Your task to perform on an android device: turn on translation in the chrome app Image 0: 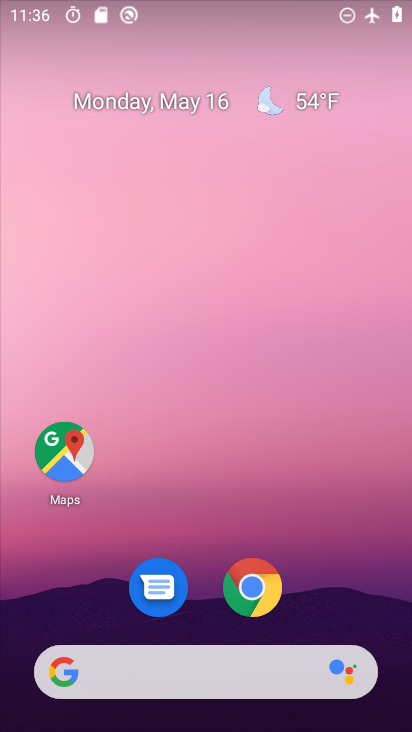
Step 0: drag from (215, 550) to (234, 113)
Your task to perform on an android device: turn on translation in the chrome app Image 1: 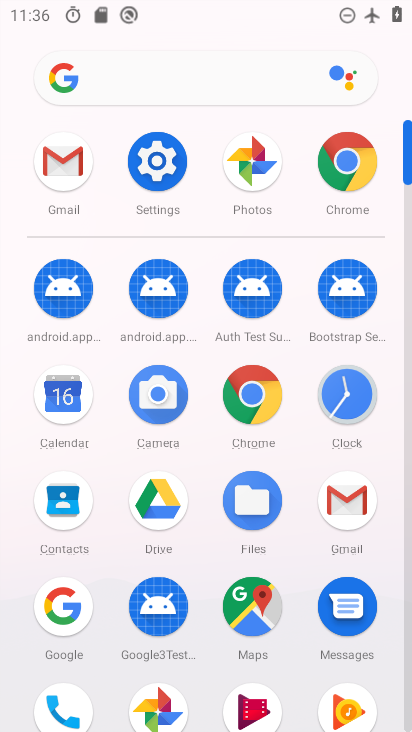
Step 1: click (252, 395)
Your task to perform on an android device: turn on translation in the chrome app Image 2: 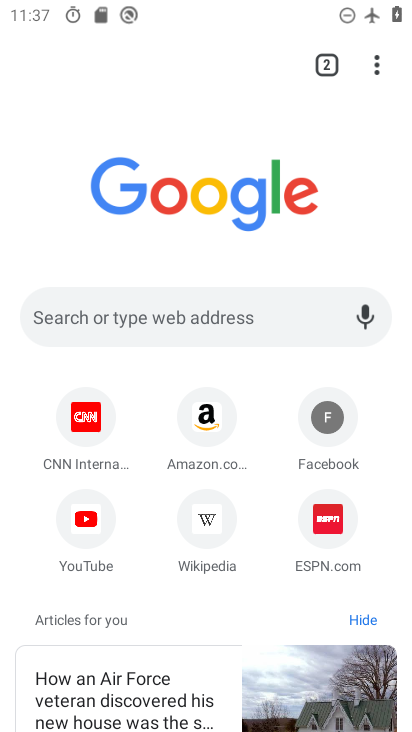
Step 2: drag from (285, 580) to (245, 191)
Your task to perform on an android device: turn on translation in the chrome app Image 3: 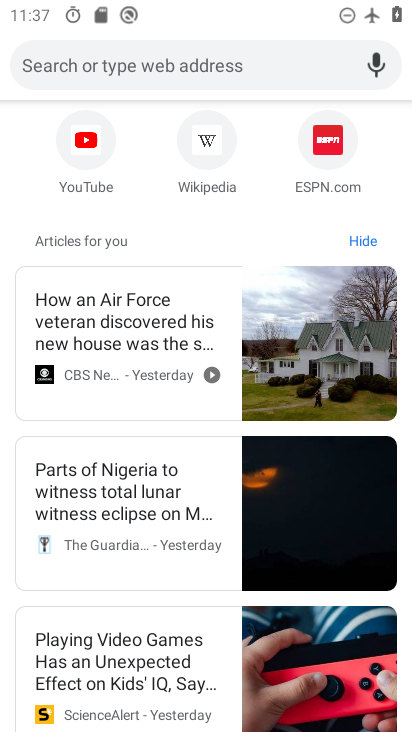
Step 3: drag from (260, 174) to (308, 685)
Your task to perform on an android device: turn on translation in the chrome app Image 4: 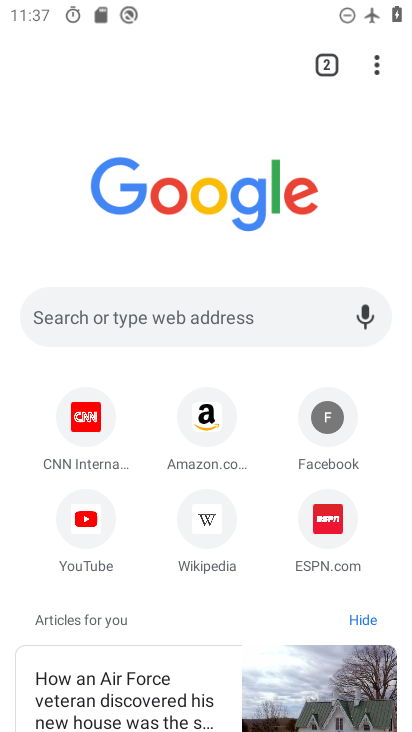
Step 4: click (381, 62)
Your task to perform on an android device: turn on translation in the chrome app Image 5: 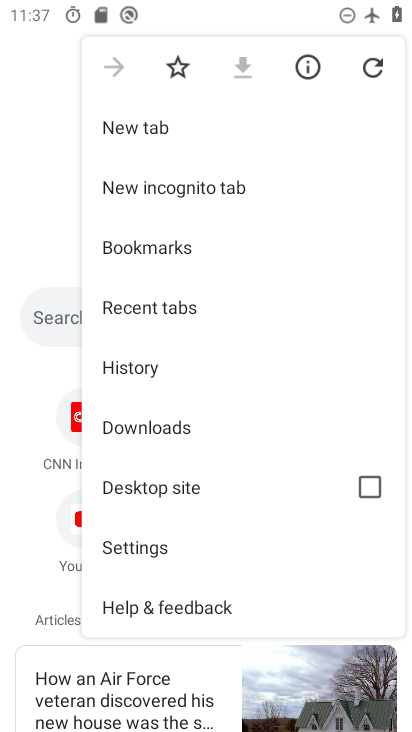
Step 5: drag from (236, 554) to (270, 123)
Your task to perform on an android device: turn on translation in the chrome app Image 6: 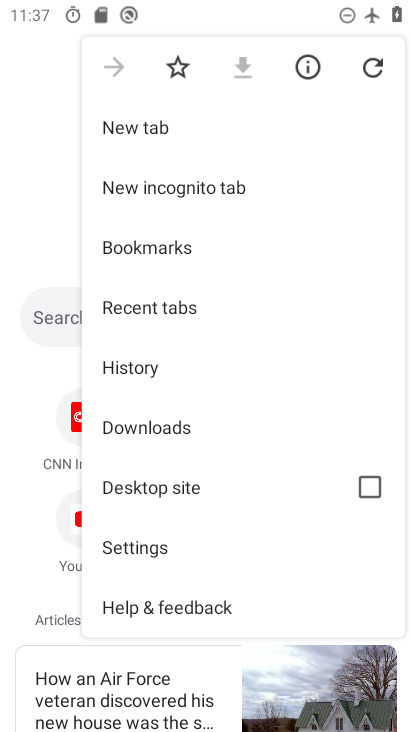
Step 6: click (143, 550)
Your task to perform on an android device: turn on translation in the chrome app Image 7: 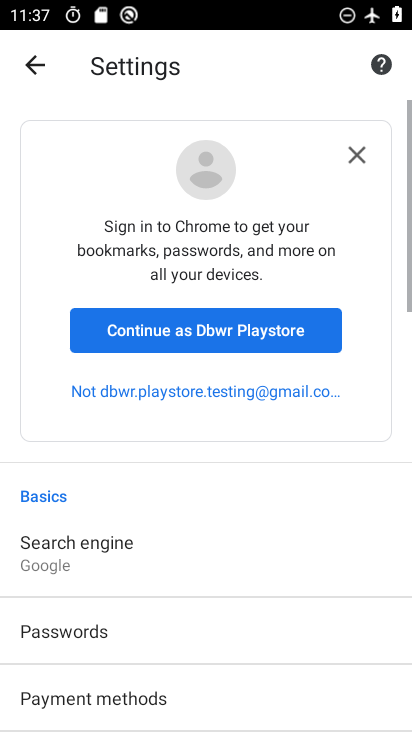
Step 7: drag from (190, 605) to (214, 223)
Your task to perform on an android device: turn on translation in the chrome app Image 8: 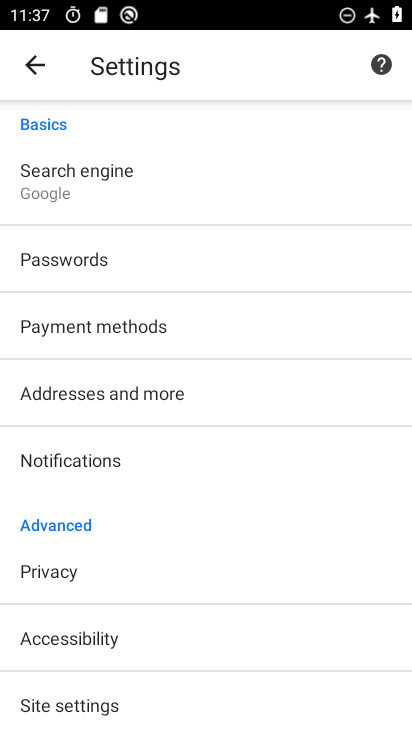
Step 8: drag from (154, 641) to (222, 116)
Your task to perform on an android device: turn on translation in the chrome app Image 9: 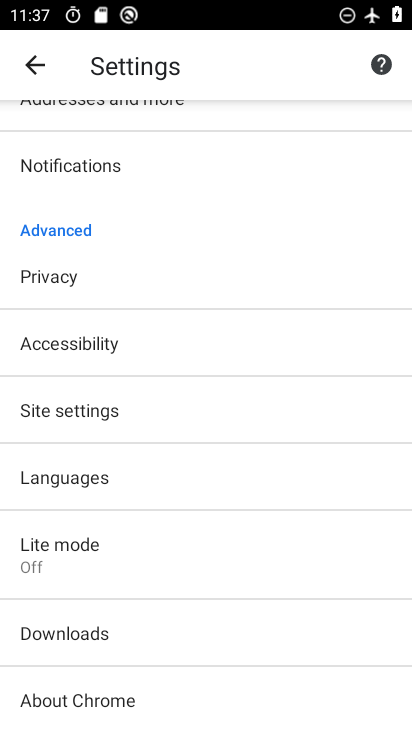
Step 9: click (107, 562)
Your task to perform on an android device: turn on translation in the chrome app Image 10: 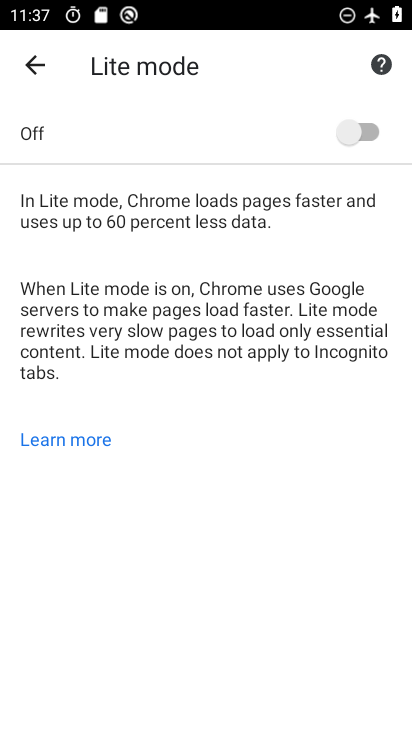
Step 10: click (345, 121)
Your task to perform on an android device: turn on translation in the chrome app Image 11: 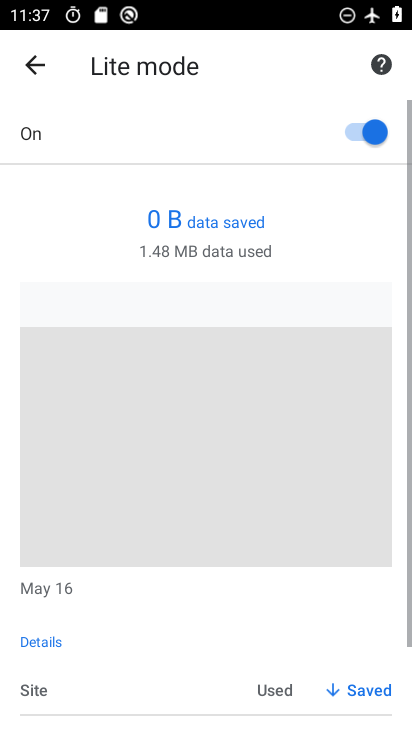
Step 11: task complete